Your task to perform on an android device: Open Chrome and go to settings Image 0: 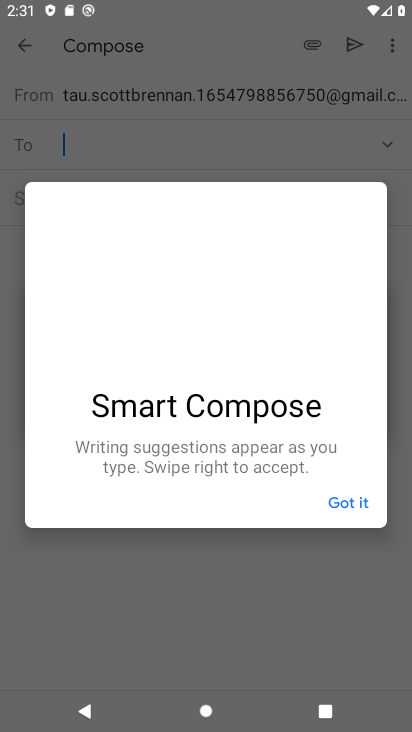
Step 0: press home button
Your task to perform on an android device: Open Chrome and go to settings Image 1: 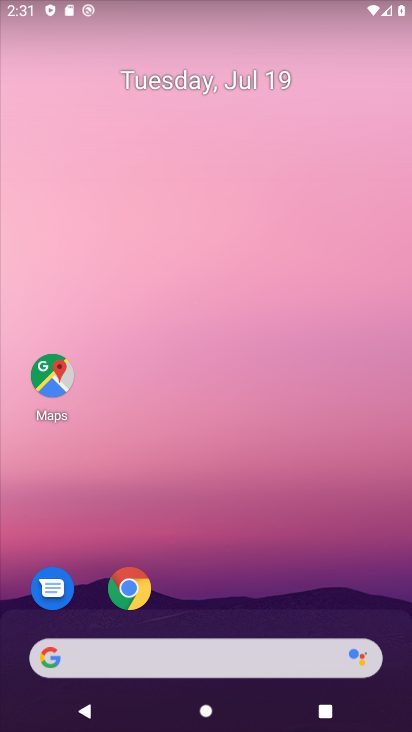
Step 1: click (129, 584)
Your task to perform on an android device: Open Chrome and go to settings Image 2: 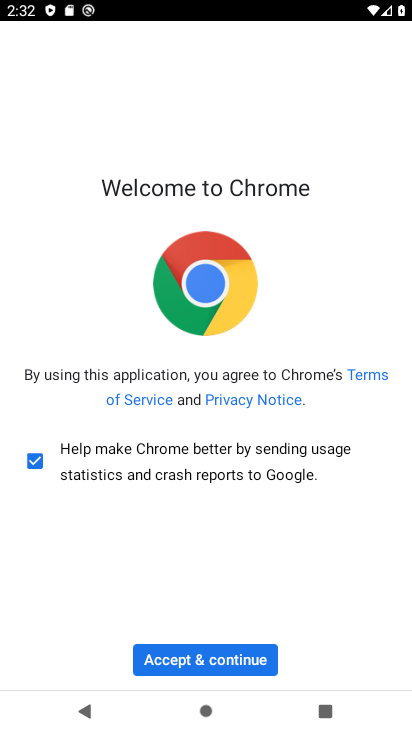
Step 2: click (173, 664)
Your task to perform on an android device: Open Chrome and go to settings Image 3: 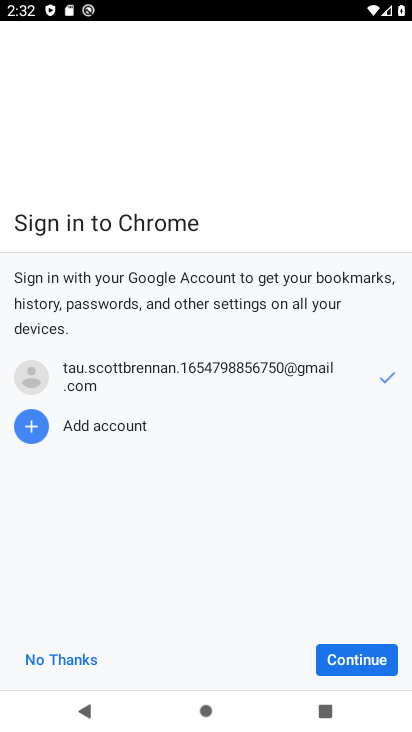
Step 3: click (352, 653)
Your task to perform on an android device: Open Chrome and go to settings Image 4: 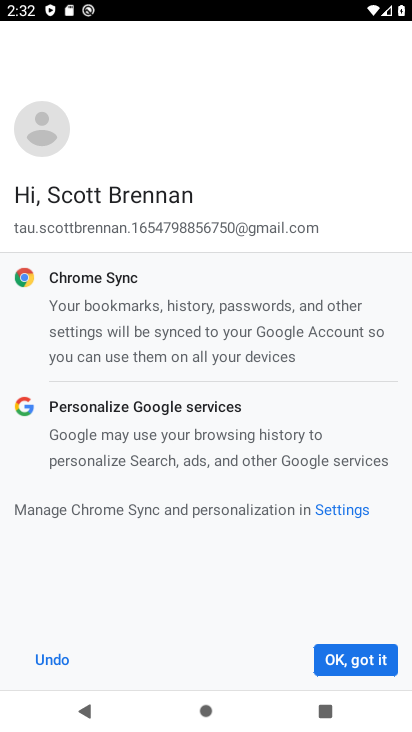
Step 4: click (352, 653)
Your task to perform on an android device: Open Chrome and go to settings Image 5: 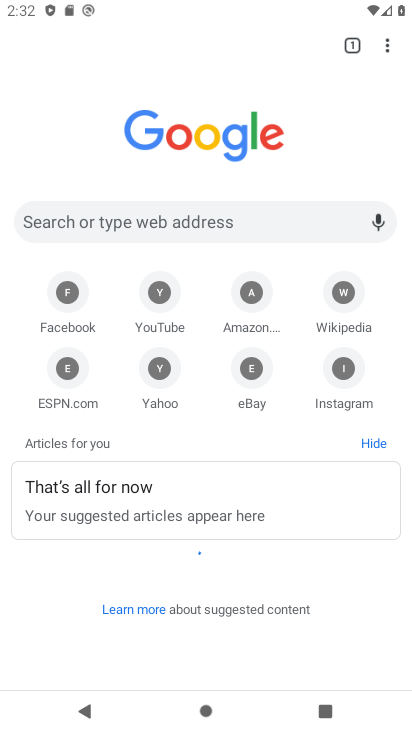
Step 5: click (384, 46)
Your task to perform on an android device: Open Chrome and go to settings Image 6: 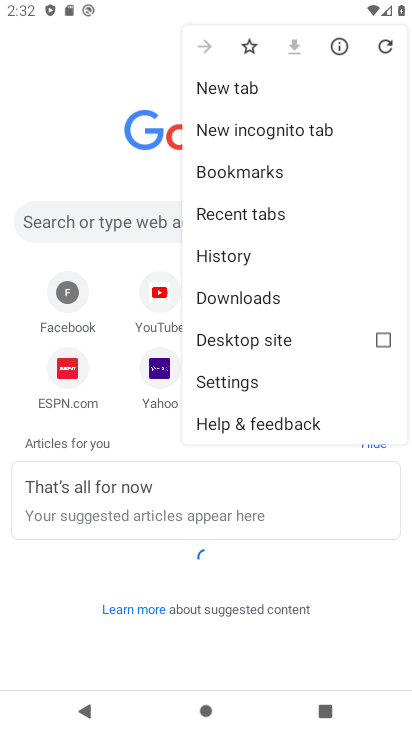
Step 6: click (280, 386)
Your task to perform on an android device: Open Chrome and go to settings Image 7: 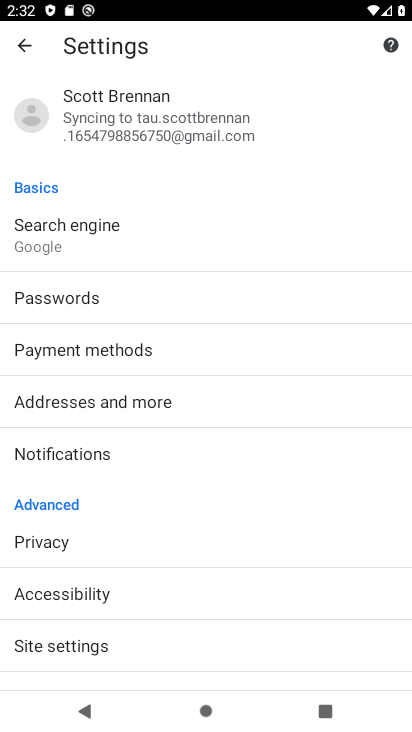
Step 7: task complete